Your task to perform on an android device: turn notification dots on Image 0: 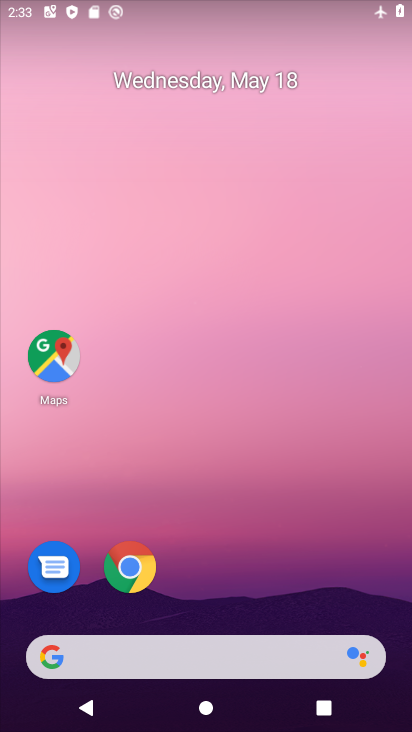
Step 0: drag from (195, 574) to (174, 156)
Your task to perform on an android device: turn notification dots on Image 1: 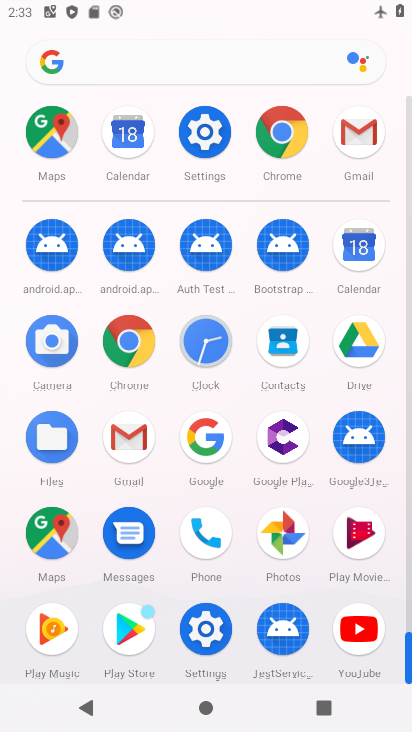
Step 1: click (193, 130)
Your task to perform on an android device: turn notification dots on Image 2: 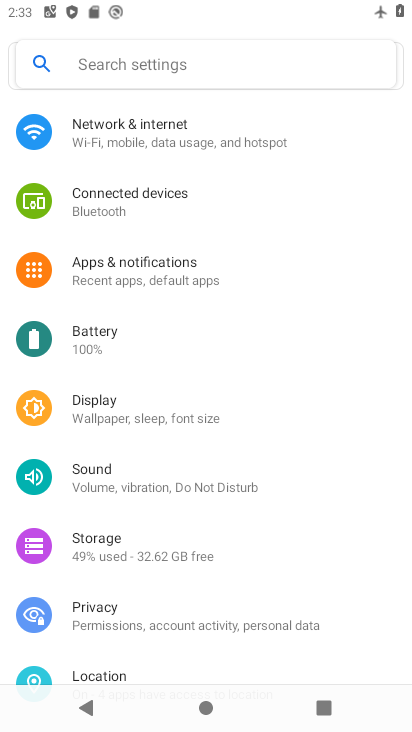
Step 2: click (218, 49)
Your task to perform on an android device: turn notification dots on Image 3: 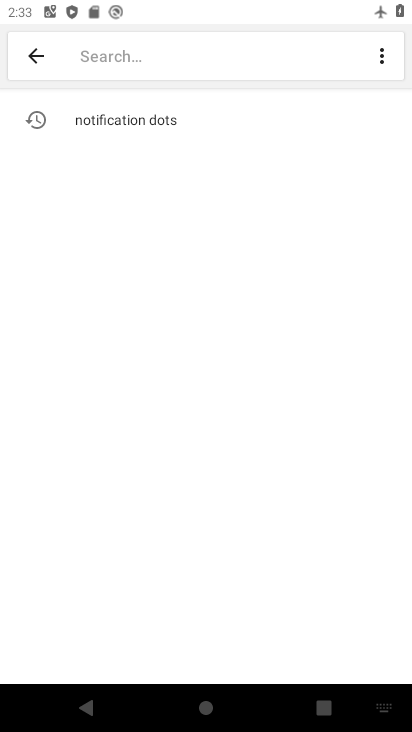
Step 3: click (177, 123)
Your task to perform on an android device: turn notification dots on Image 4: 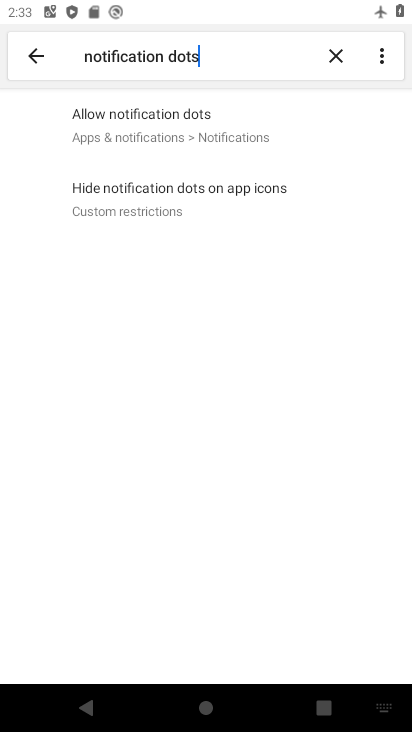
Step 4: click (222, 117)
Your task to perform on an android device: turn notification dots on Image 5: 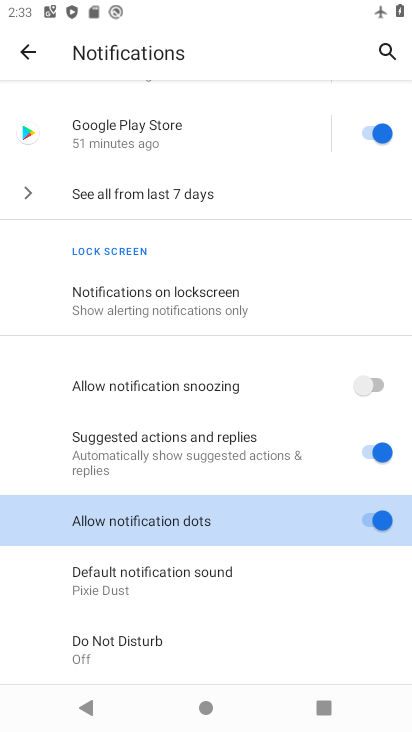
Step 5: task complete